Your task to perform on an android device: toggle airplane mode Image 0: 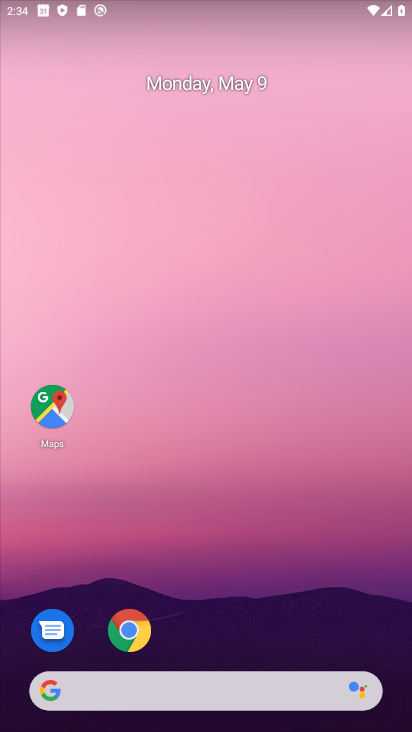
Step 0: drag from (261, 625) to (185, 45)
Your task to perform on an android device: toggle airplane mode Image 1: 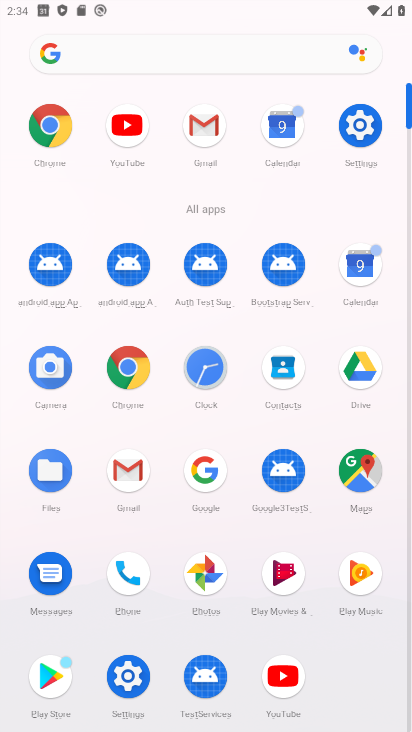
Step 1: click (354, 129)
Your task to perform on an android device: toggle airplane mode Image 2: 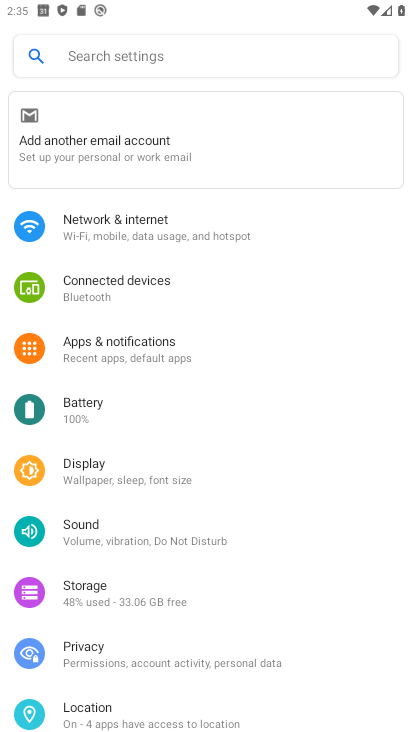
Step 2: click (276, 237)
Your task to perform on an android device: toggle airplane mode Image 3: 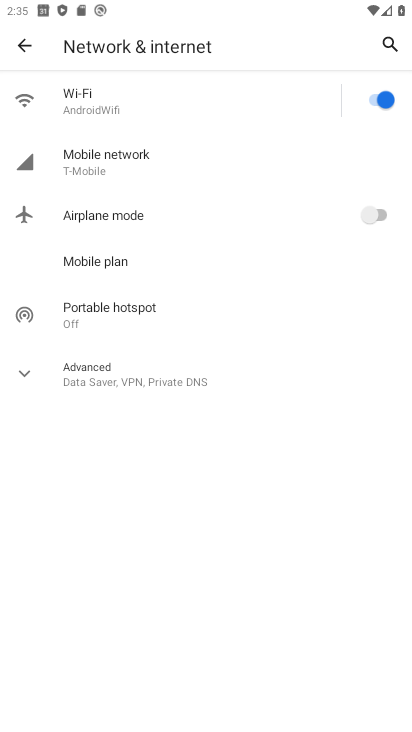
Step 3: click (383, 231)
Your task to perform on an android device: toggle airplane mode Image 4: 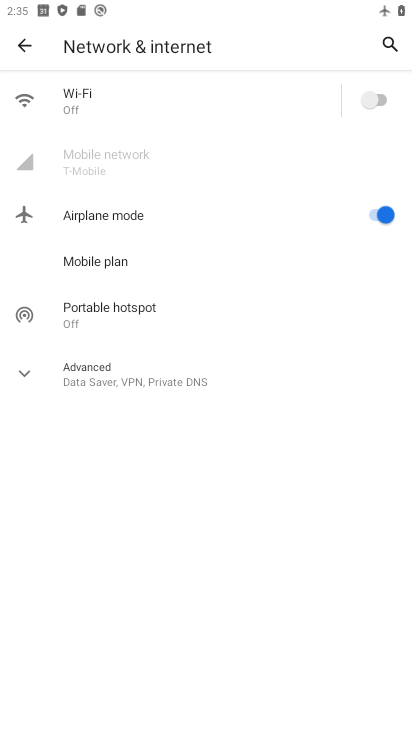
Step 4: task complete